Your task to perform on an android device: find snoozed emails in the gmail app Image 0: 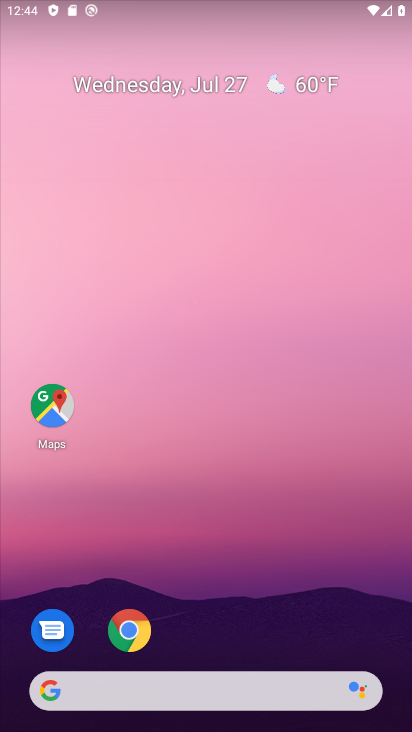
Step 0: press home button
Your task to perform on an android device: find snoozed emails in the gmail app Image 1: 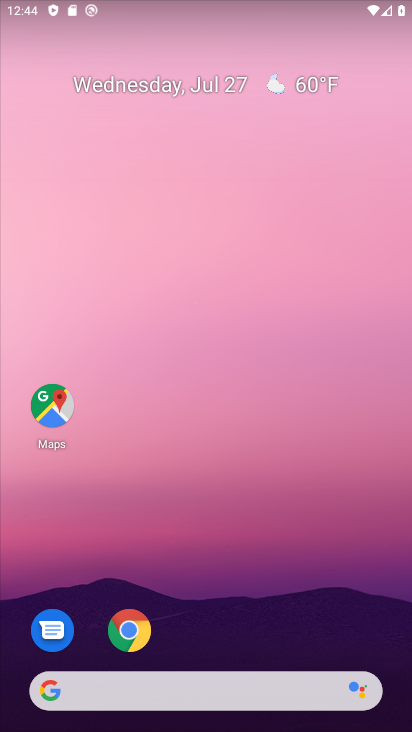
Step 1: drag from (232, 656) to (276, 175)
Your task to perform on an android device: find snoozed emails in the gmail app Image 2: 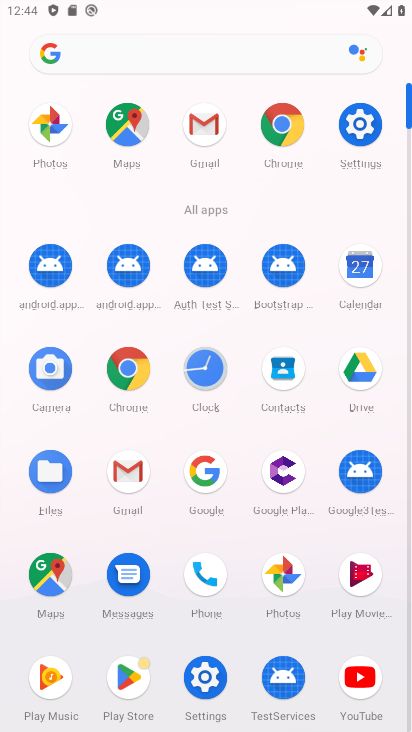
Step 2: click (200, 118)
Your task to perform on an android device: find snoozed emails in the gmail app Image 3: 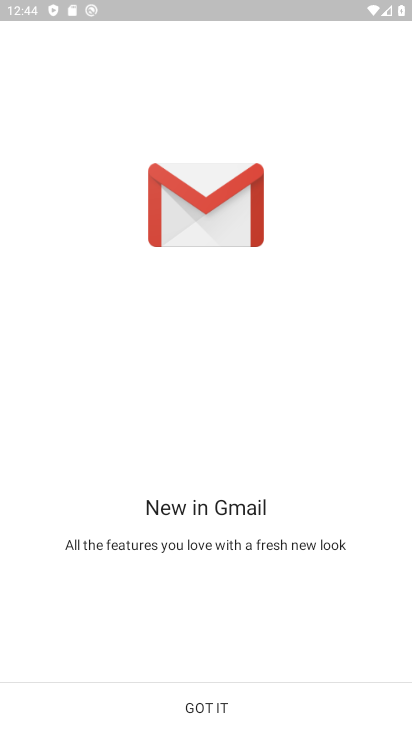
Step 3: click (210, 709)
Your task to perform on an android device: find snoozed emails in the gmail app Image 4: 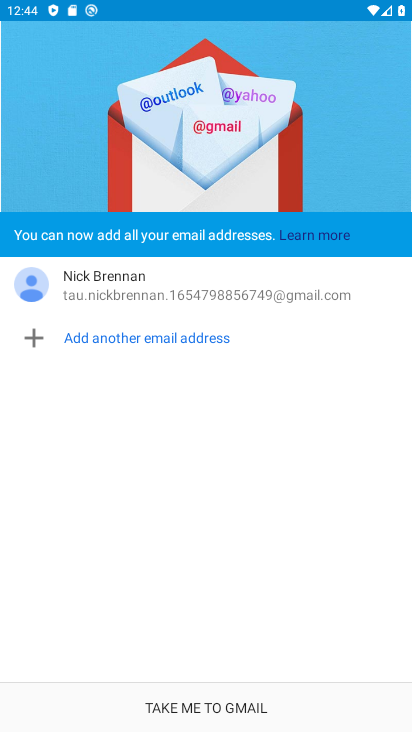
Step 4: click (205, 712)
Your task to perform on an android device: find snoozed emails in the gmail app Image 5: 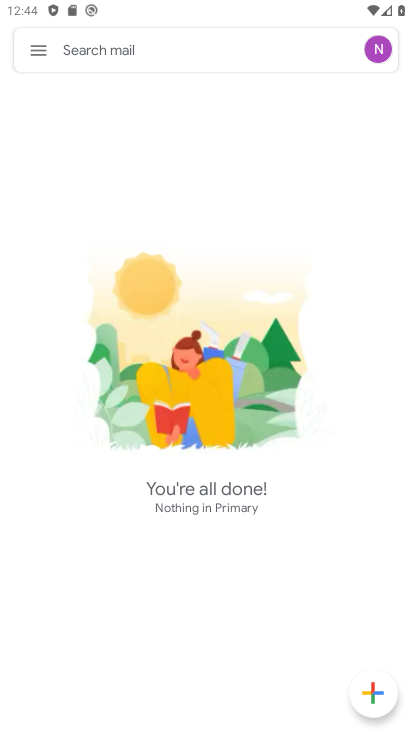
Step 5: click (37, 53)
Your task to perform on an android device: find snoozed emails in the gmail app Image 6: 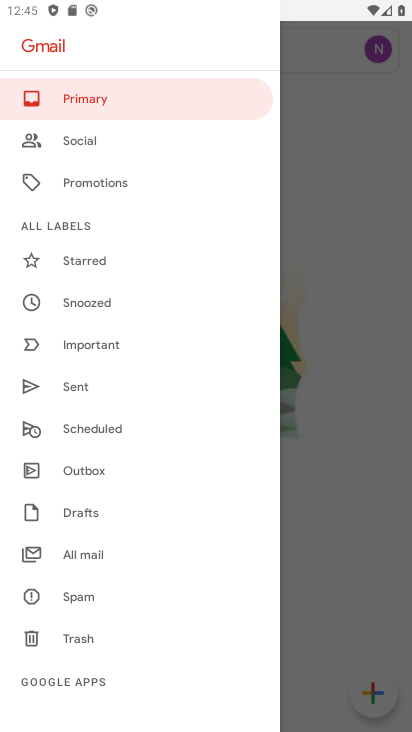
Step 6: click (78, 304)
Your task to perform on an android device: find snoozed emails in the gmail app Image 7: 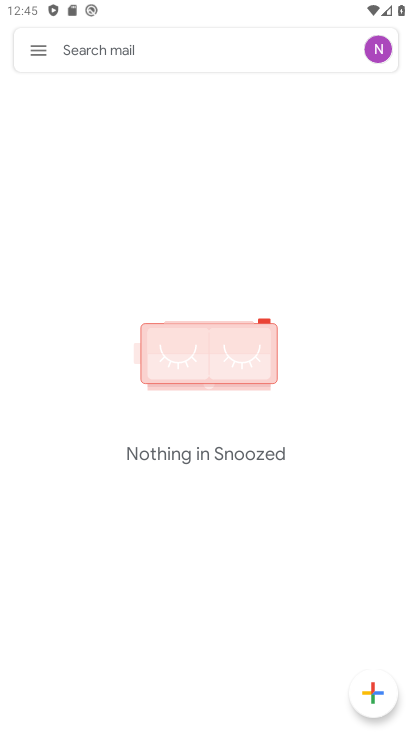
Step 7: task complete